Your task to perform on an android device: open app "Google Play services" (install if not already installed) Image 0: 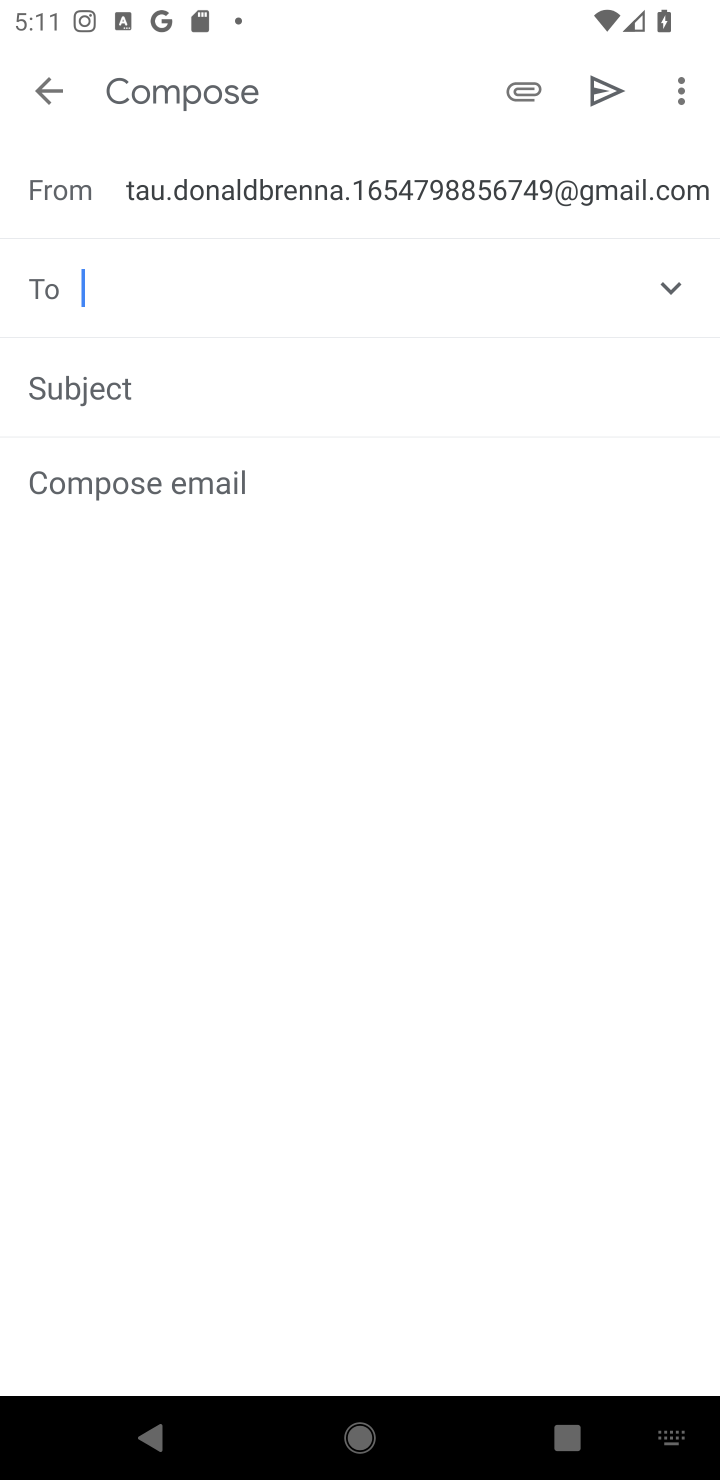
Step 0: press home button
Your task to perform on an android device: open app "Google Play services" (install if not already installed) Image 1: 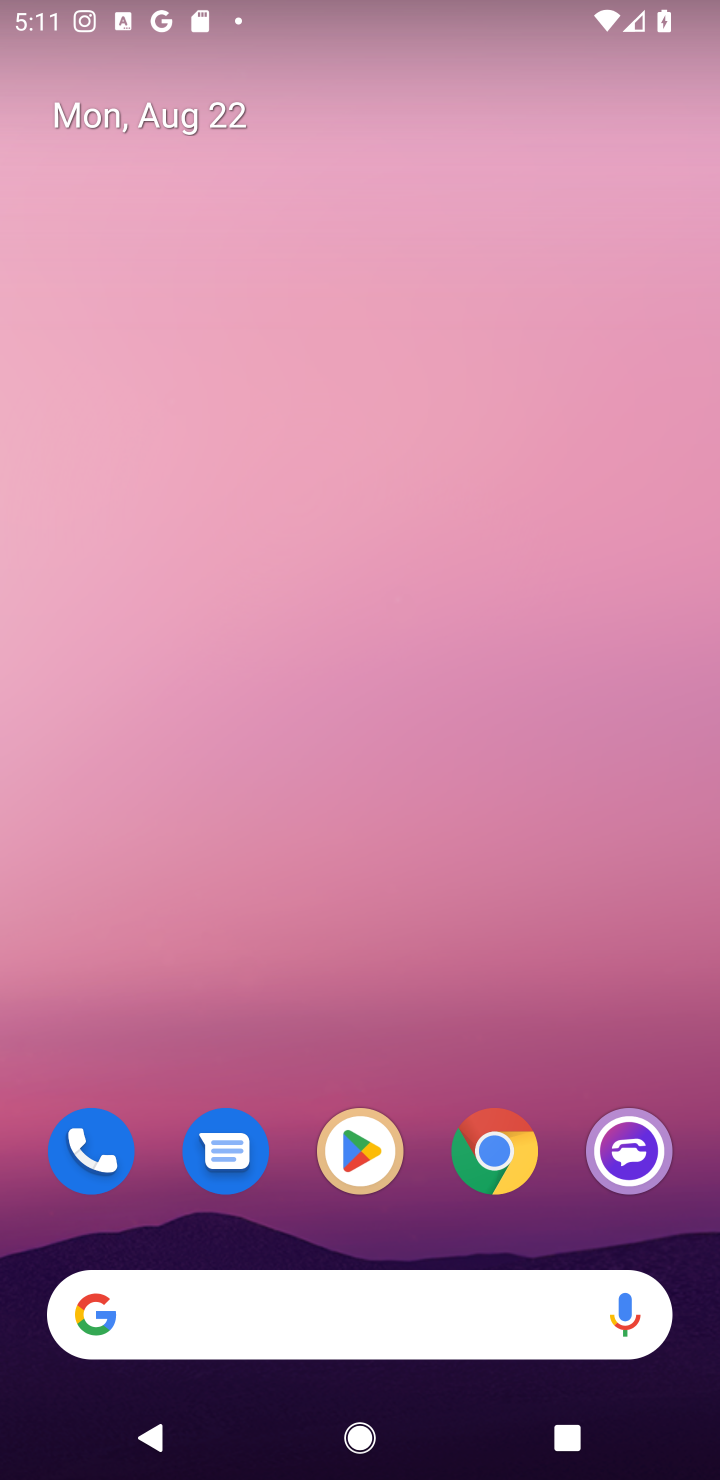
Step 1: click (346, 1154)
Your task to perform on an android device: open app "Google Play services" (install if not already installed) Image 2: 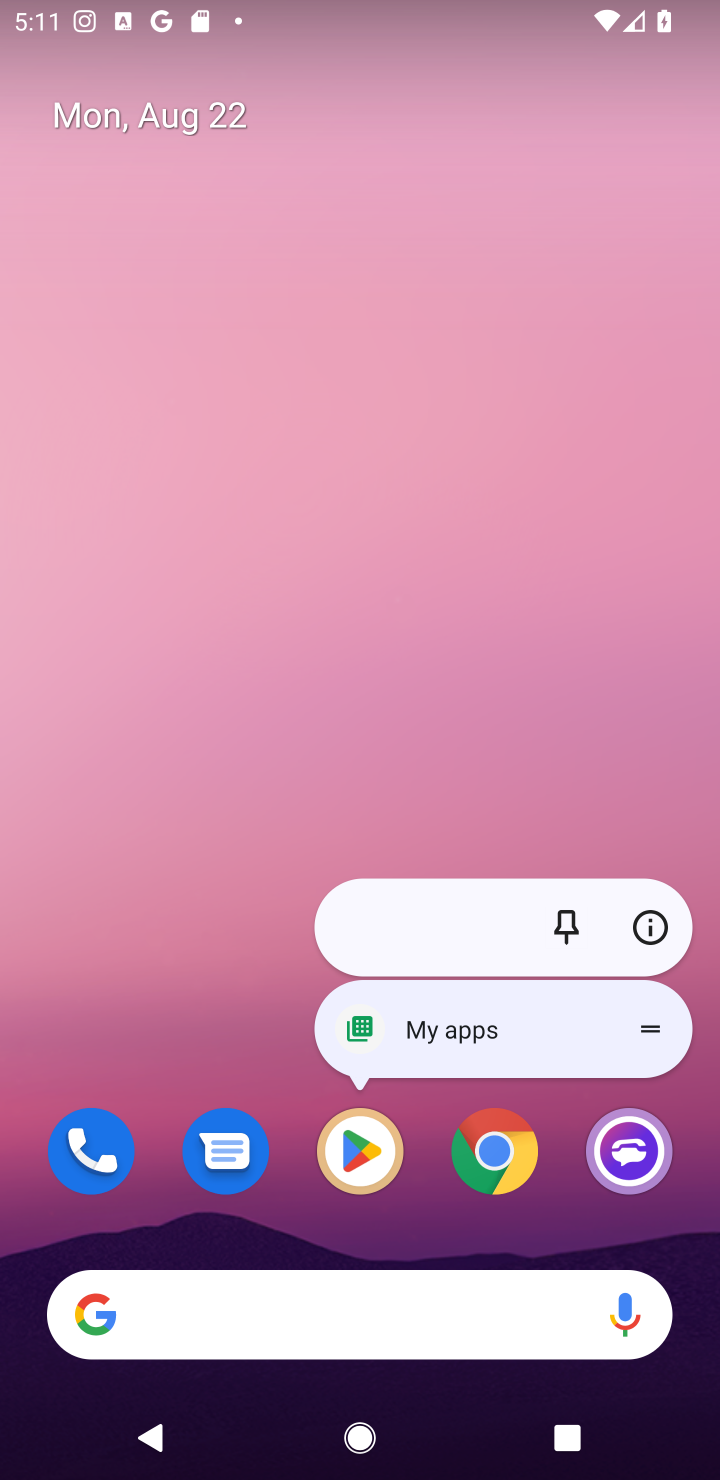
Step 2: click (346, 1154)
Your task to perform on an android device: open app "Google Play services" (install if not already installed) Image 3: 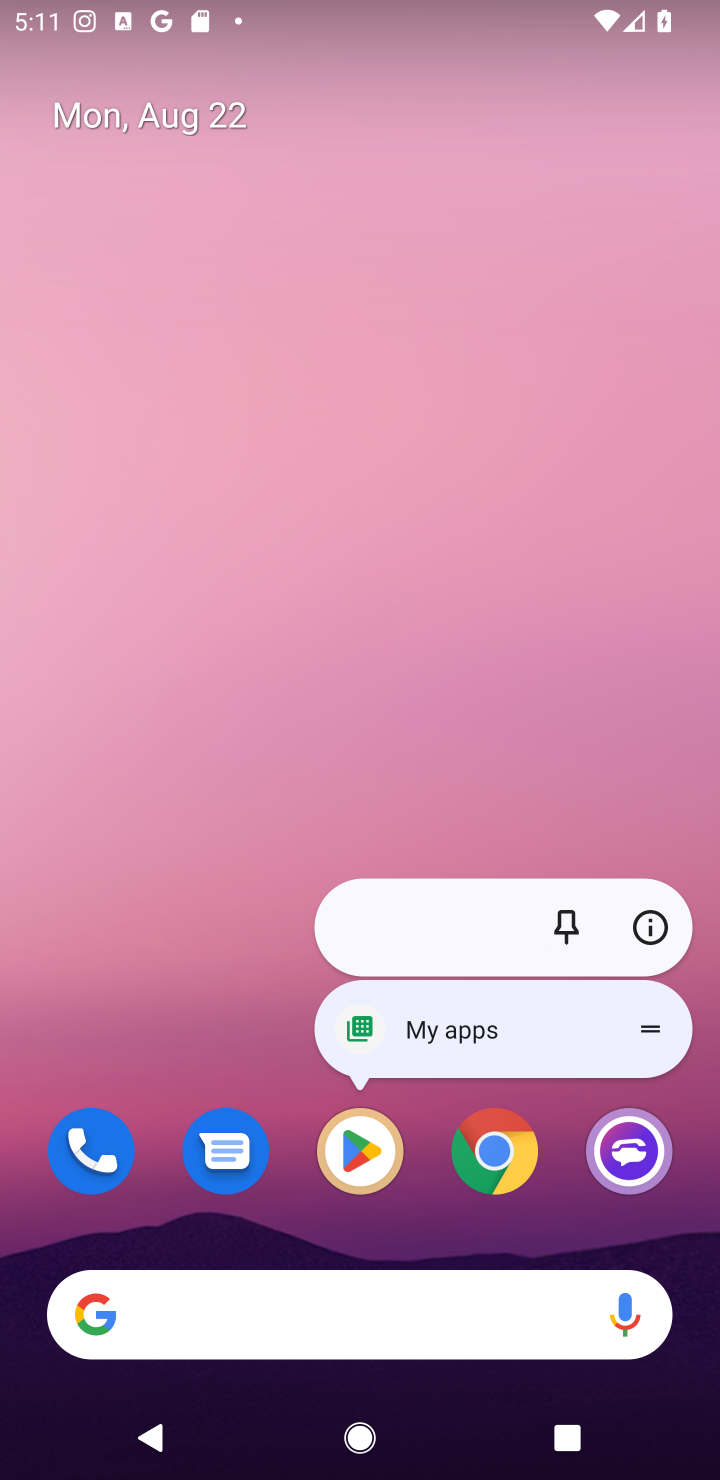
Step 3: click (363, 1135)
Your task to perform on an android device: open app "Google Play services" (install if not already installed) Image 4: 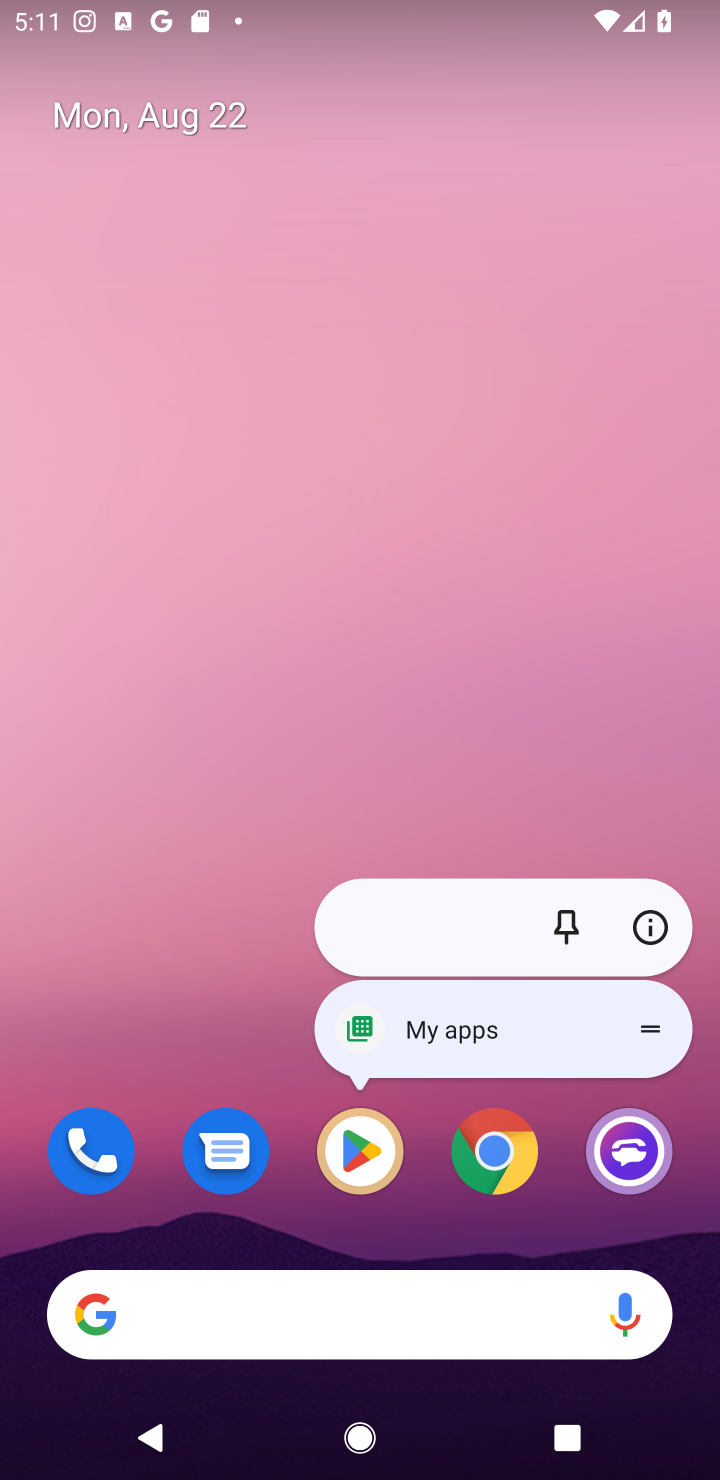
Step 4: click (359, 1167)
Your task to perform on an android device: open app "Google Play services" (install if not already installed) Image 5: 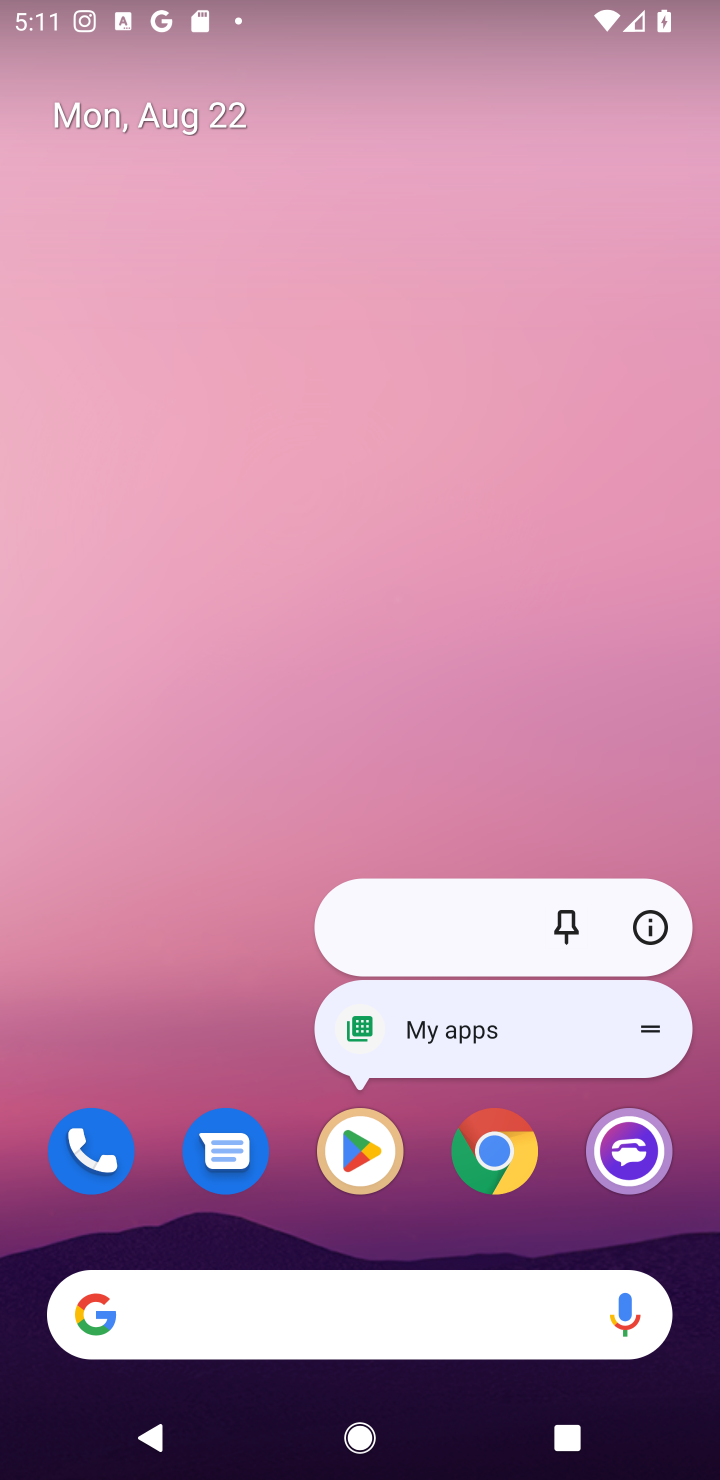
Step 5: click (343, 1181)
Your task to perform on an android device: open app "Google Play services" (install if not already installed) Image 6: 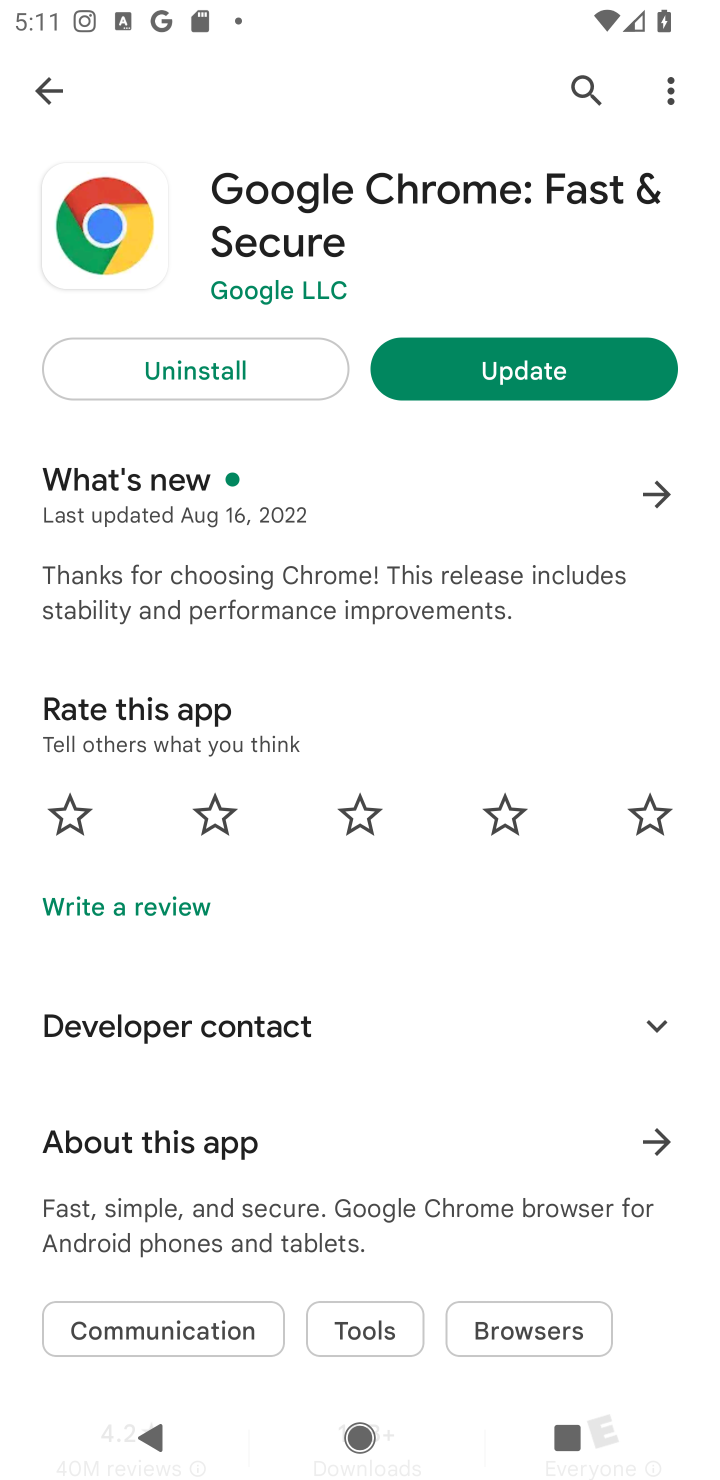
Step 6: click (583, 76)
Your task to perform on an android device: open app "Google Play services" (install if not already installed) Image 7: 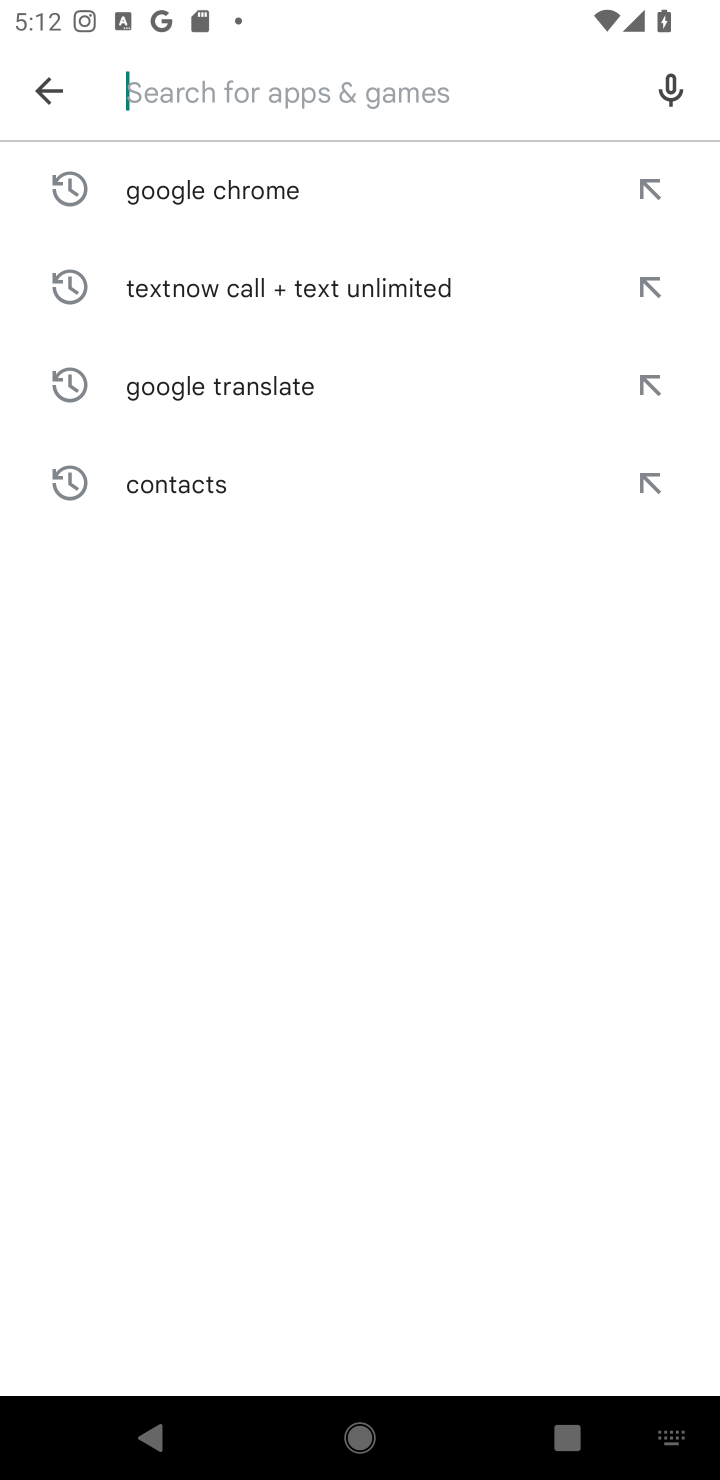
Step 7: type "Google Play services"
Your task to perform on an android device: open app "Google Play services" (install if not already installed) Image 8: 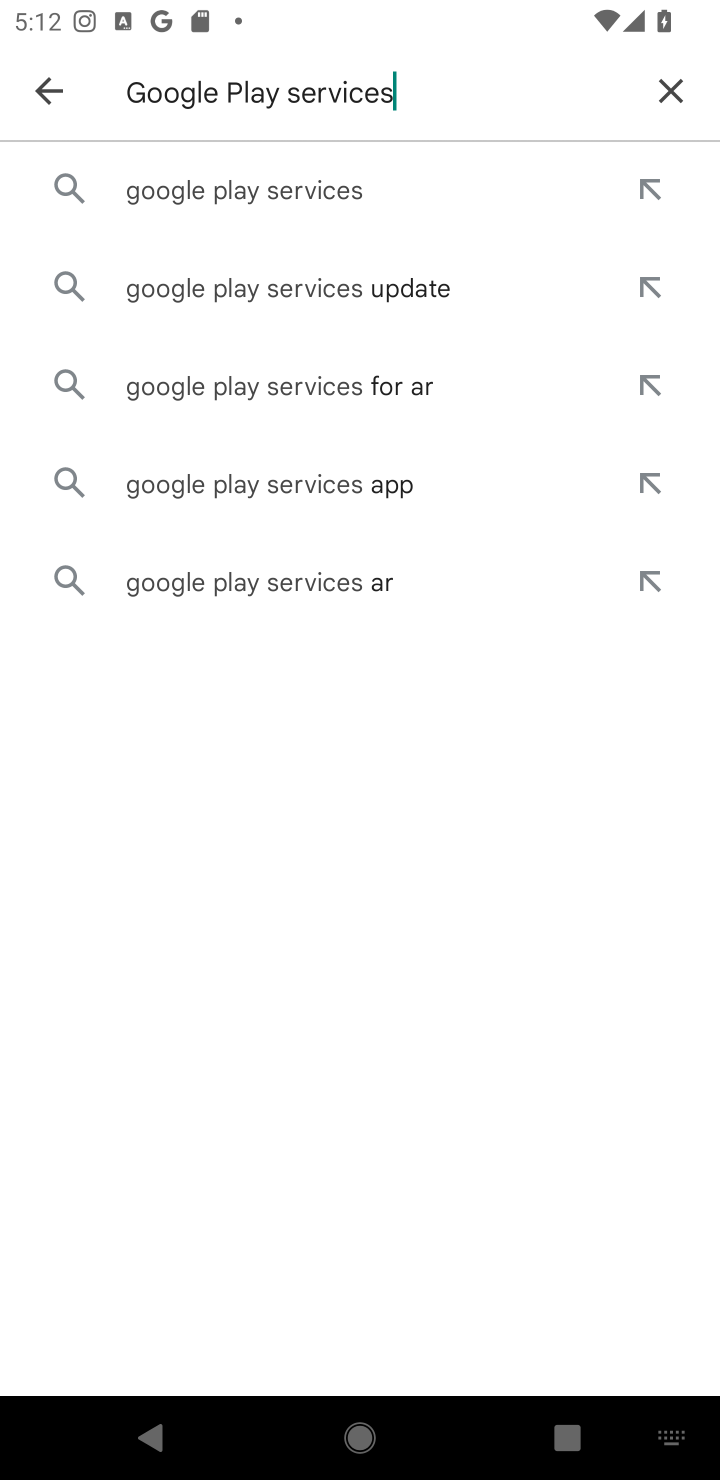
Step 8: click (290, 193)
Your task to perform on an android device: open app "Google Play services" (install if not already installed) Image 9: 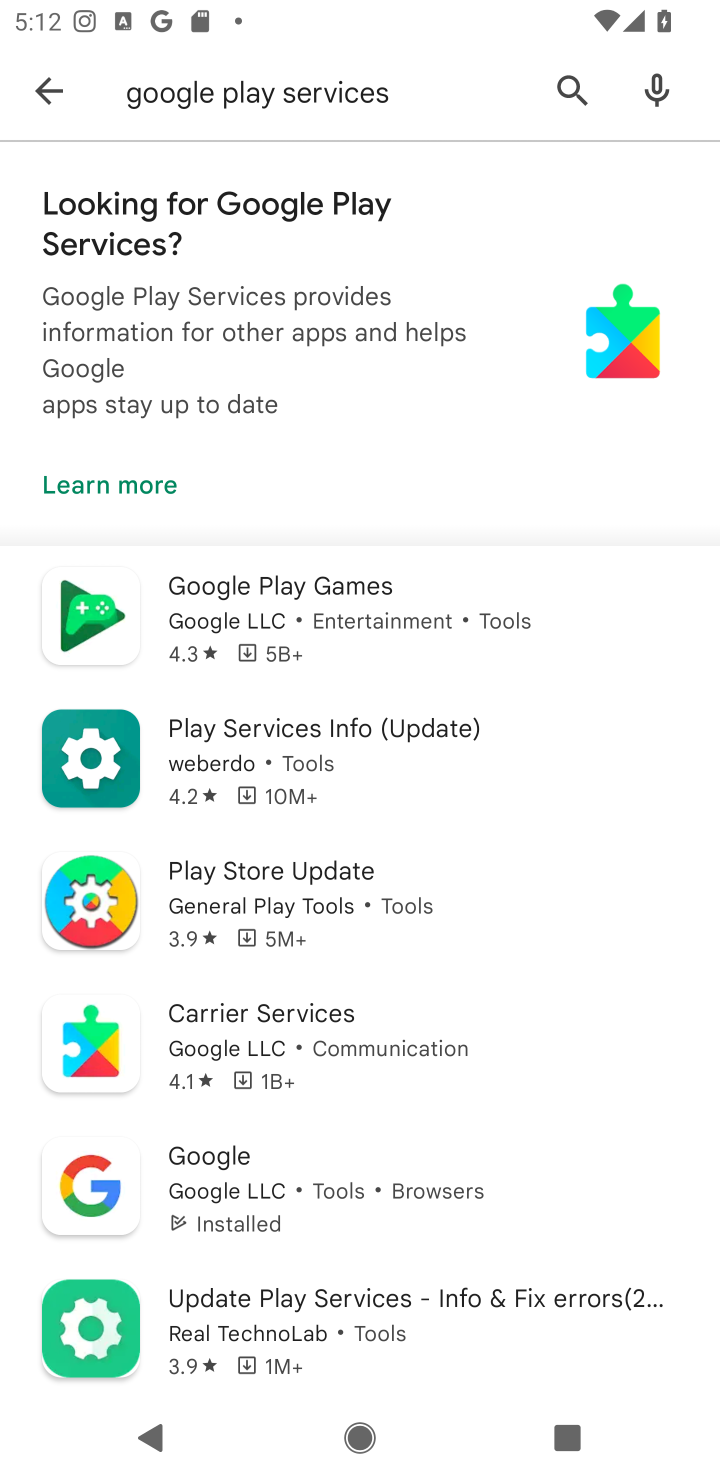
Step 9: task complete